Your task to perform on an android device: Open the calendar app, open the side menu, and click the "Day" option Image 0: 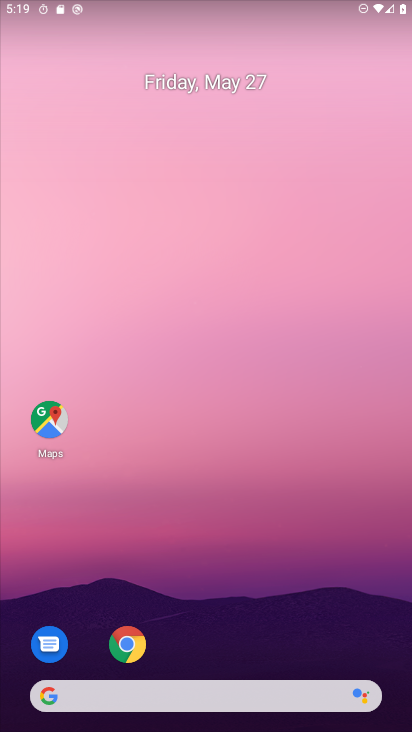
Step 0: click (194, 81)
Your task to perform on an android device: Open the calendar app, open the side menu, and click the "Day" option Image 1: 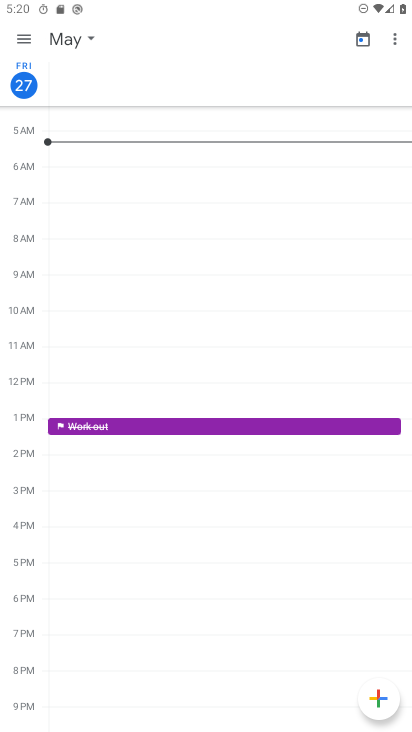
Step 1: click (24, 39)
Your task to perform on an android device: Open the calendar app, open the side menu, and click the "Day" option Image 2: 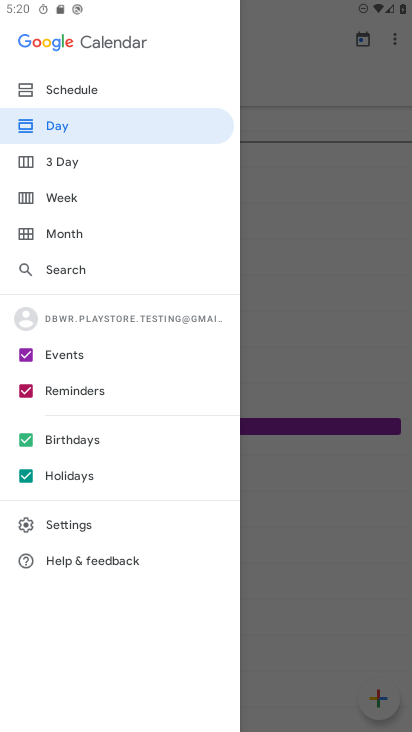
Step 2: click (47, 134)
Your task to perform on an android device: Open the calendar app, open the side menu, and click the "Day" option Image 3: 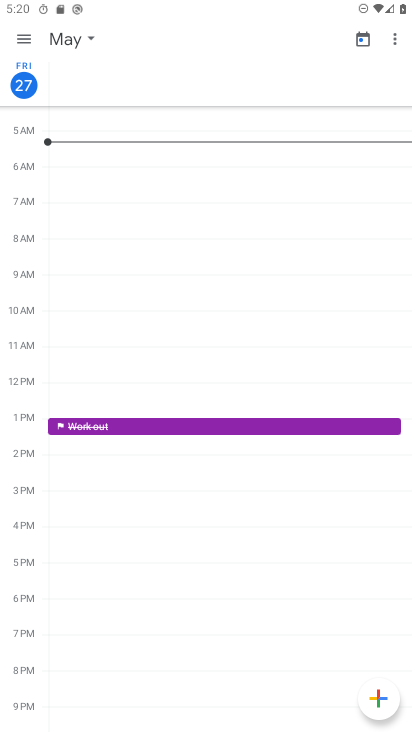
Step 3: task complete